Your task to perform on an android device: star an email in the gmail app Image 0: 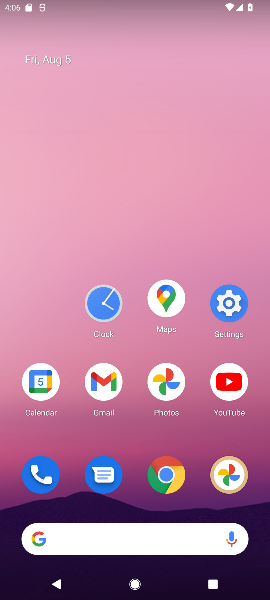
Step 0: click (109, 384)
Your task to perform on an android device: star an email in the gmail app Image 1: 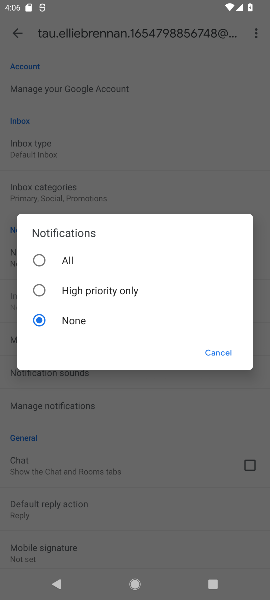
Step 1: click (223, 346)
Your task to perform on an android device: star an email in the gmail app Image 2: 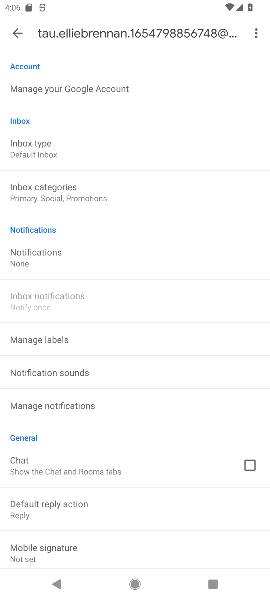
Step 2: click (21, 30)
Your task to perform on an android device: star an email in the gmail app Image 3: 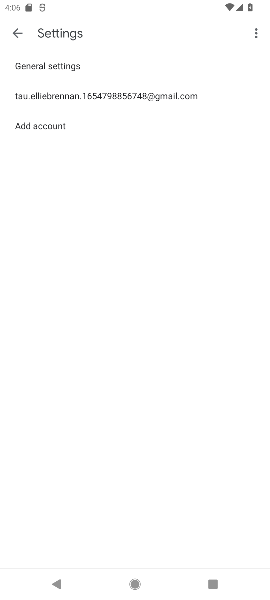
Step 3: click (21, 30)
Your task to perform on an android device: star an email in the gmail app Image 4: 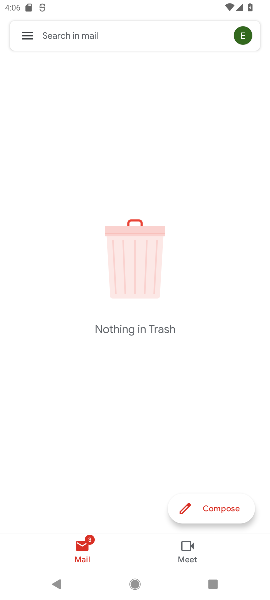
Step 4: click (23, 36)
Your task to perform on an android device: star an email in the gmail app Image 5: 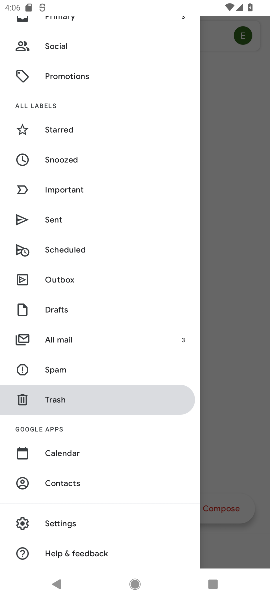
Step 5: drag from (180, 117) to (185, 462)
Your task to perform on an android device: star an email in the gmail app Image 6: 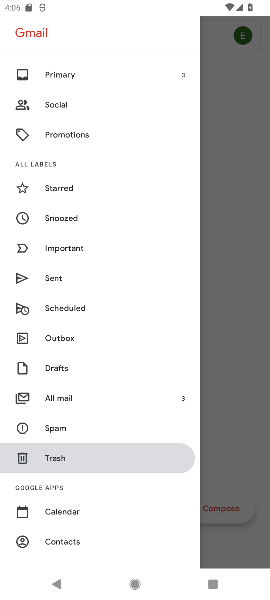
Step 6: click (56, 69)
Your task to perform on an android device: star an email in the gmail app Image 7: 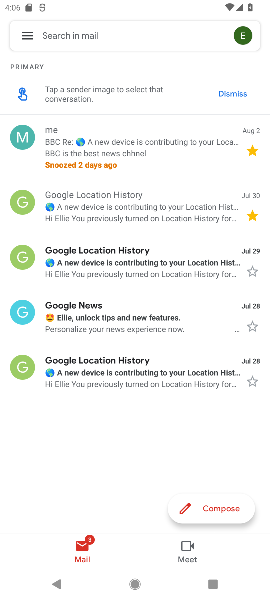
Step 7: click (248, 269)
Your task to perform on an android device: star an email in the gmail app Image 8: 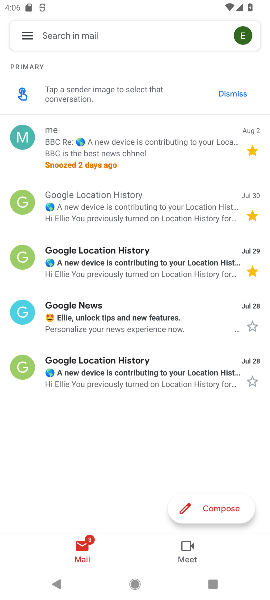
Step 8: task complete